Your task to perform on an android device: Open battery settings Image 0: 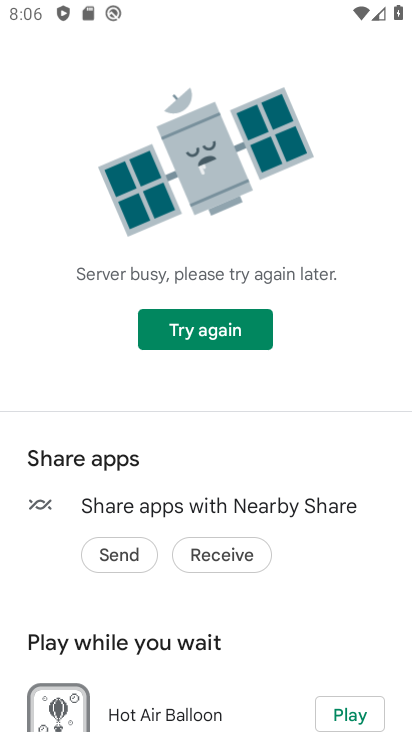
Step 0: press home button
Your task to perform on an android device: Open battery settings Image 1: 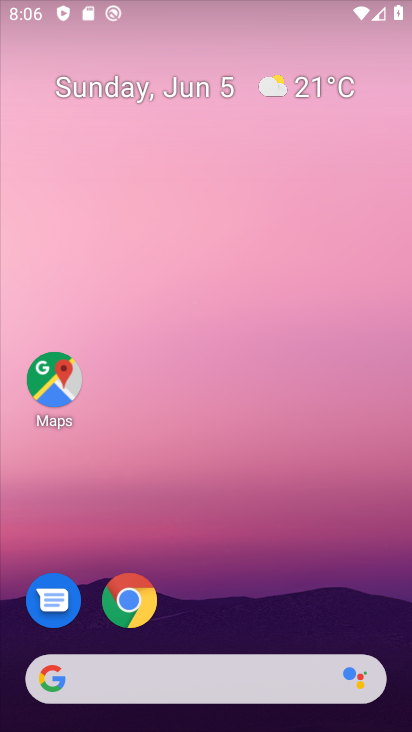
Step 1: drag from (263, 626) to (392, 62)
Your task to perform on an android device: Open battery settings Image 2: 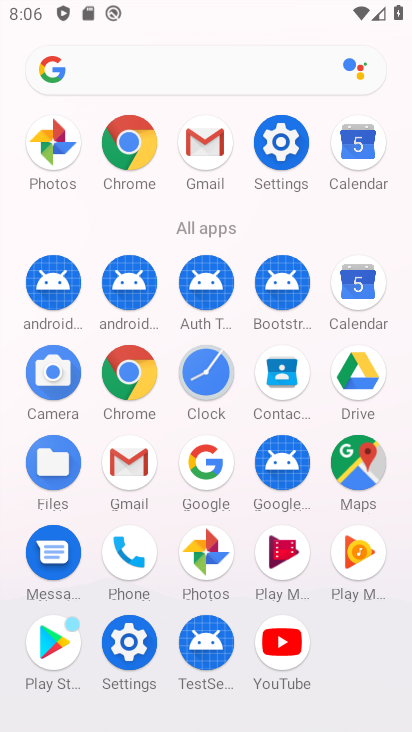
Step 2: click (280, 144)
Your task to perform on an android device: Open battery settings Image 3: 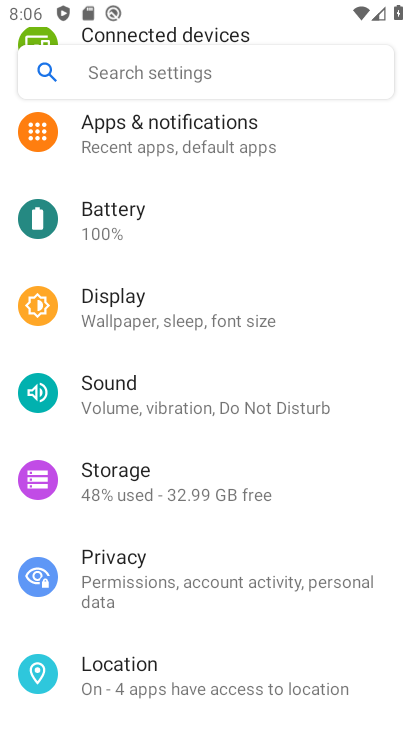
Step 3: click (170, 219)
Your task to perform on an android device: Open battery settings Image 4: 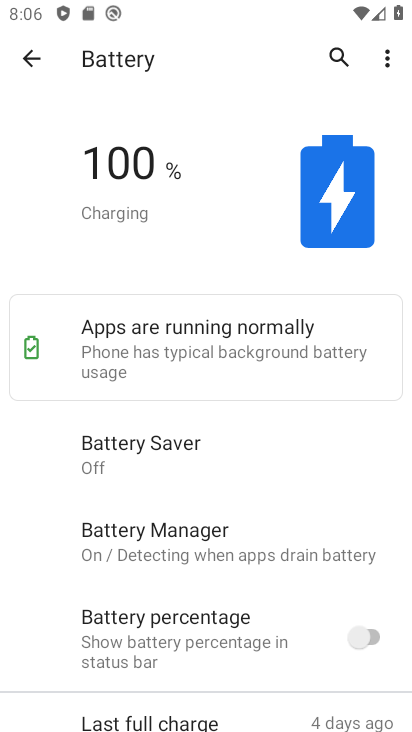
Step 4: task complete